Your task to perform on an android device: add a contact in the contacts app Image 0: 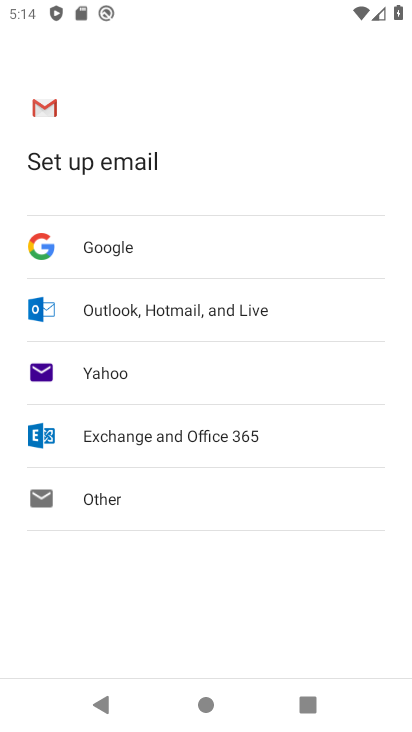
Step 0: press home button
Your task to perform on an android device: add a contact in the contacts app Image 1: 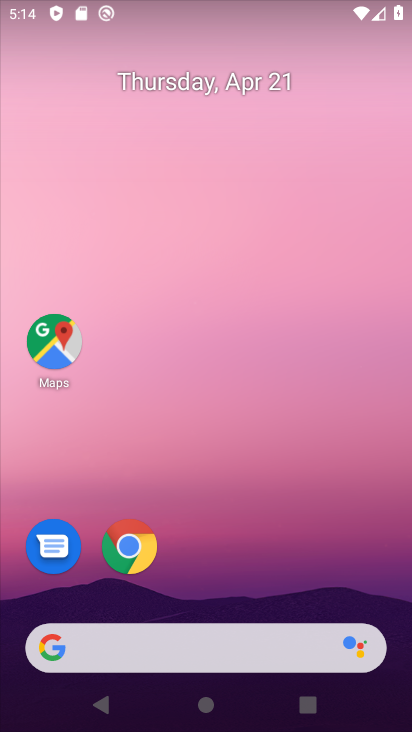
Step 1: drag from (285, 259) to (240, 30)
Your task to perform on an android device: add a contact in the contacts app Image 2: 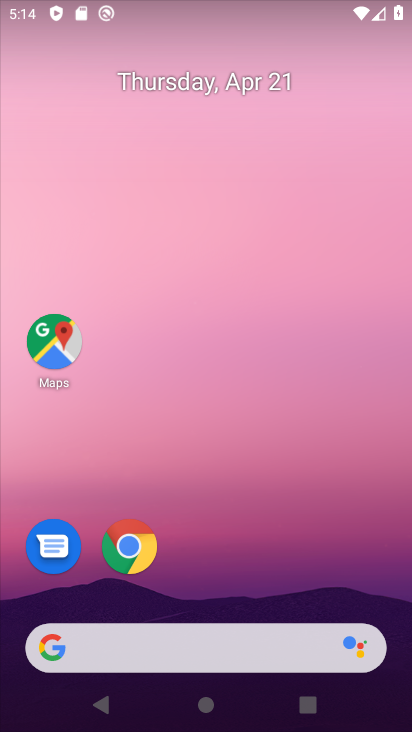
Step 2: drag from (362, 607) to (206, 6)
Your task to perform on an android device: add a contact in the contacts app Image 3: 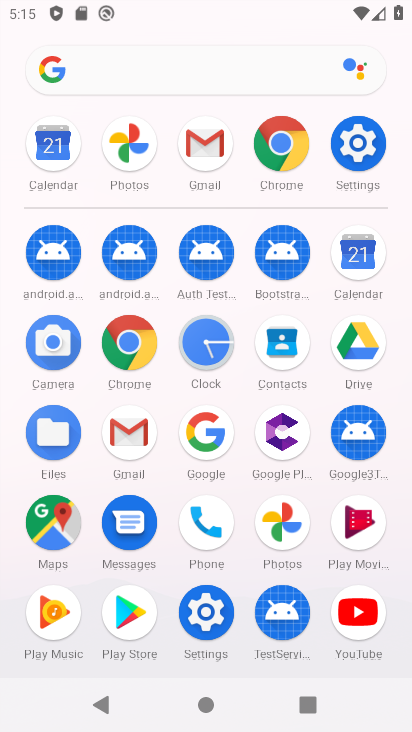
Step 3: click (267, 343)
Your task to perform on an android device: add a contact in the contacts app Image 4: 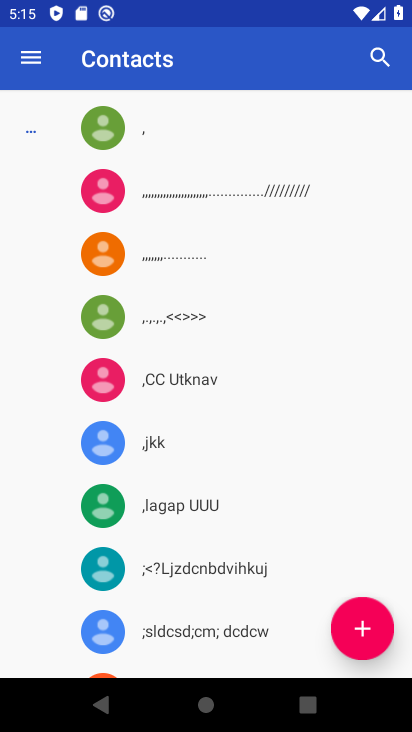
Step 4: click (357, 639)
Your task to perform on an android device: add a contact in the contacts app Image 5: 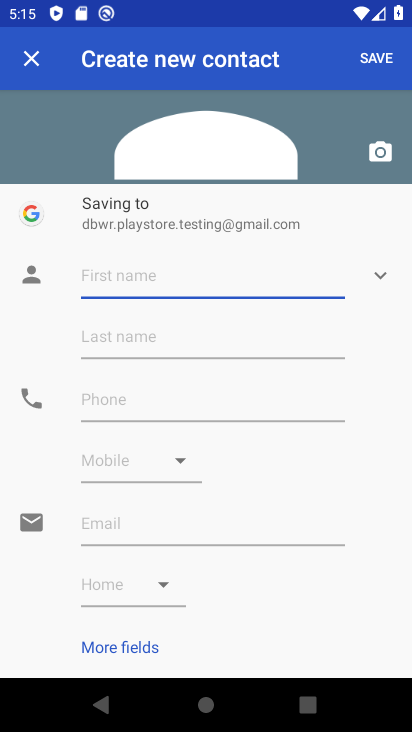
Step 5: click (170, 260)
Your task to perform on an android device: add a contact in the contacts app Image 6: 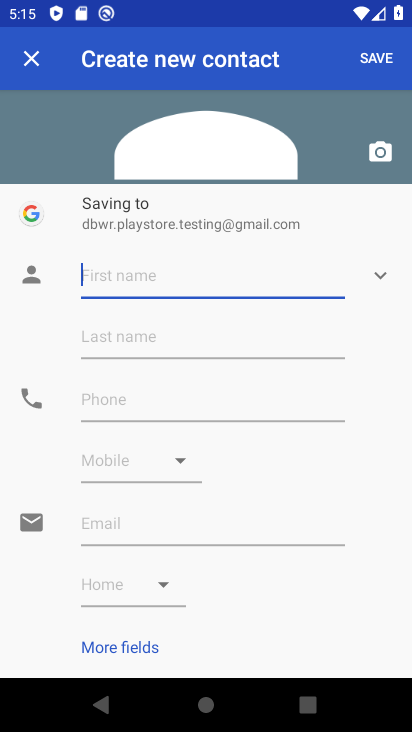
Step 6: type "zxcvbnm"
Your task to perform on an android device: add a contact in the contacts app Image 7: 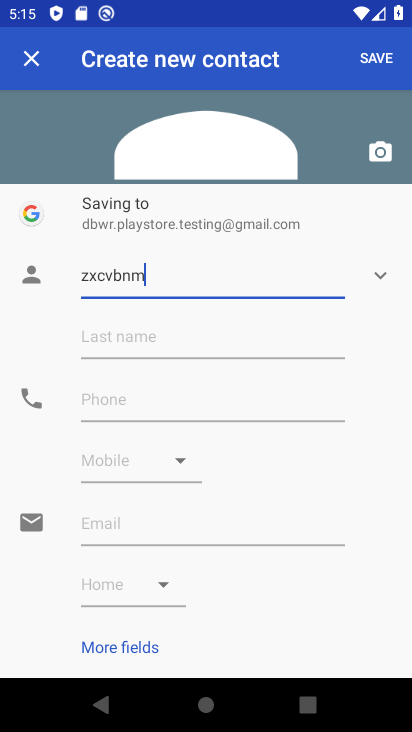
Step 7: type ""
Your task to perform on an android device: add a contact in the contacts app Image 8: 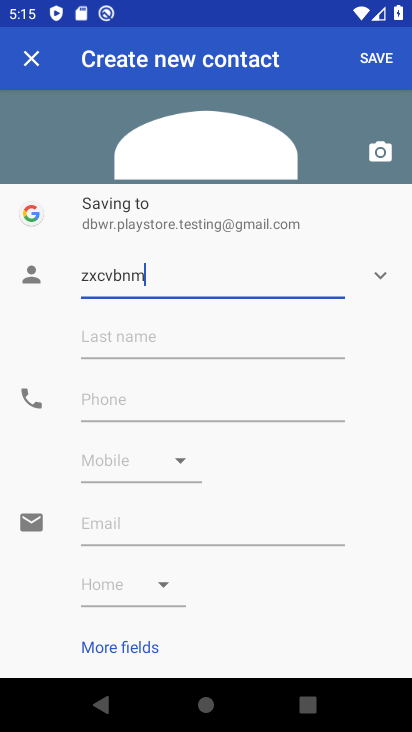
Step 8: click (106, 394)
Your task to perform on an android device: add a contact in the contacts app Image 9: 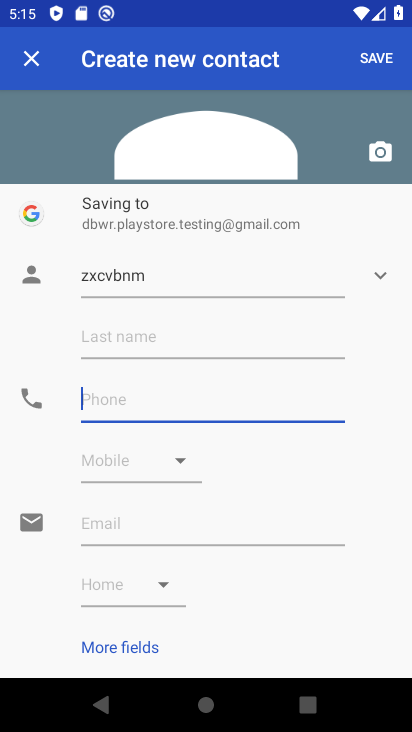
Step 9: click (106, 394)
Your task to perform on an android device: add a contact in the contacts app Image 10: 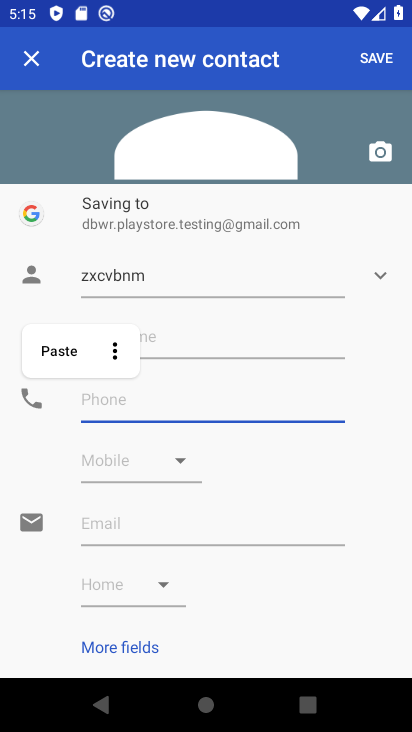
Step 10: type "1234567890"
Your task to perform on an android device: add a contact in the contacts app Image 11: 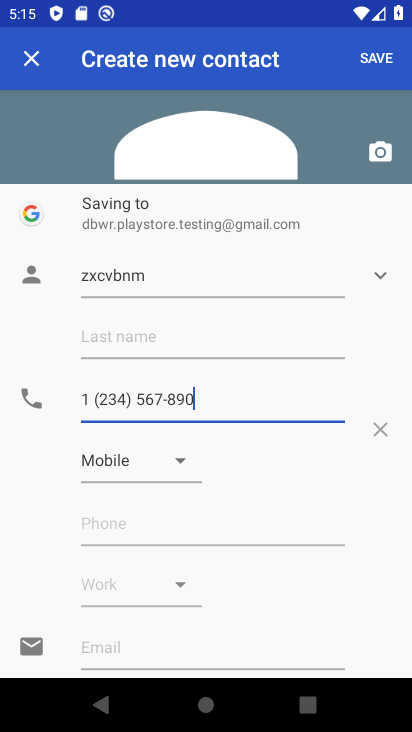
Step 11: type ""
Your task to perform on an android device: add a contact in the contacts app Image 12: 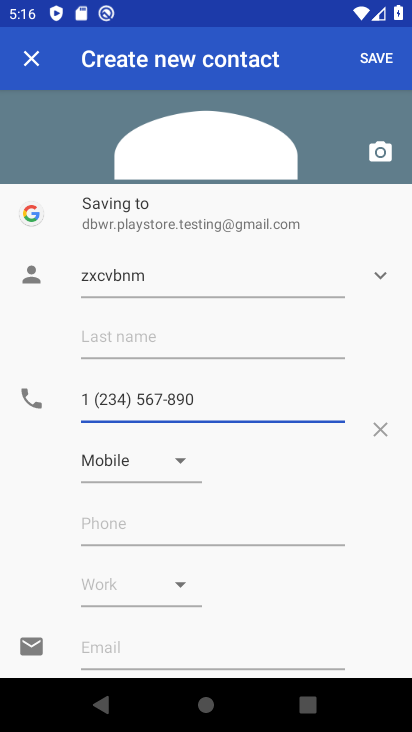
Step 12: click (380, 55)
Your task to perform on an android device: add a contact in the contacts app Image 13: 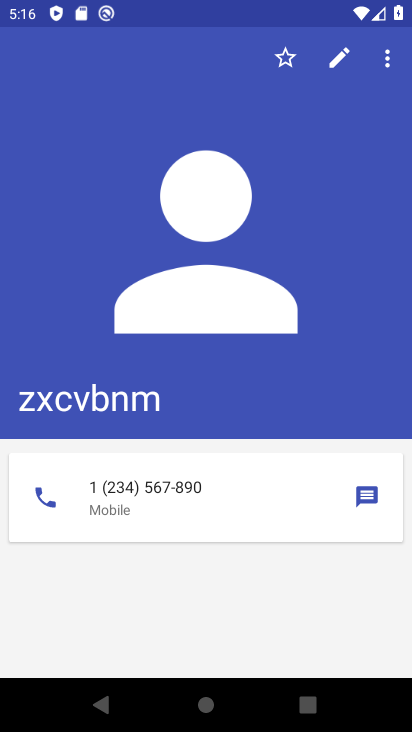
Step 13: task complete